Your task to perform on an android device: delete the emails in spam in the gmail app Image 0: 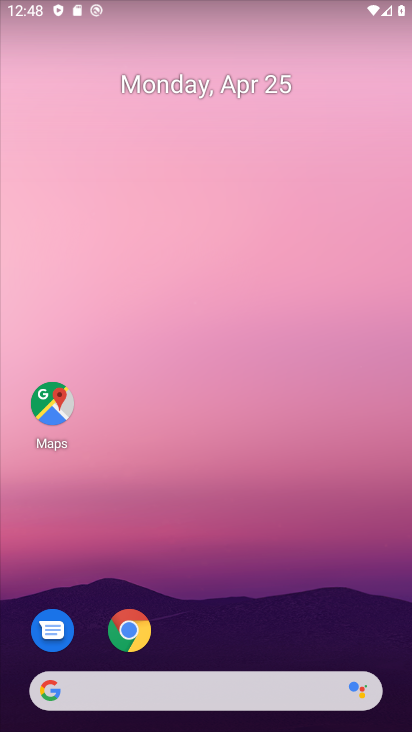
Step 0: drag from (180, 667) to (252, 96)
Your task to perform on an android device: delete the emails in spam in the gmail app Image 1: 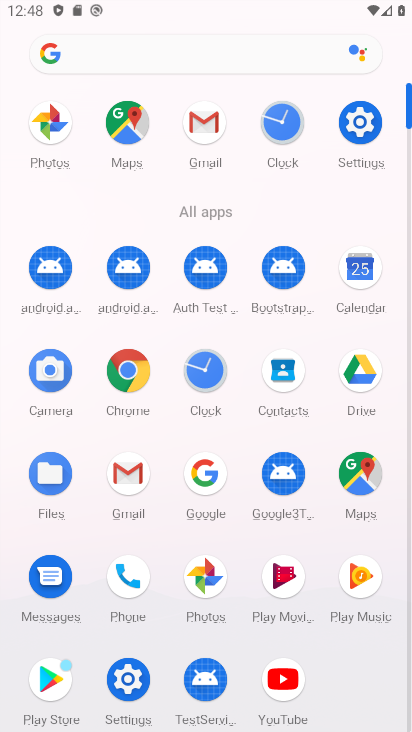
Step 1: click (122, 489)
Your task to perform on an android device: delete the emails in spam in the gmail app Image 2: 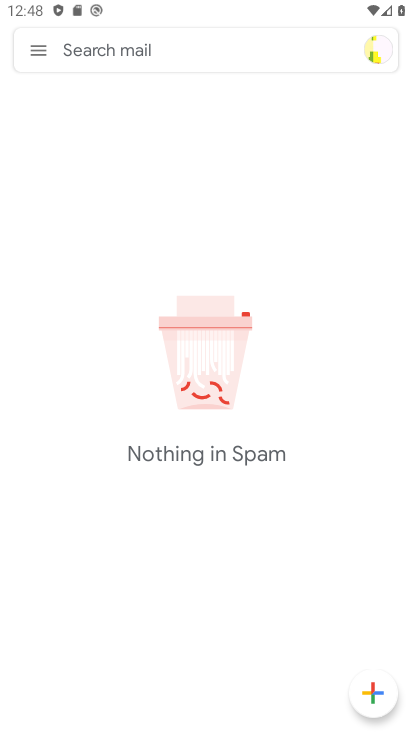
Step 2: task complete